Your task to perform on an android device: Go to notification settings Image 0: 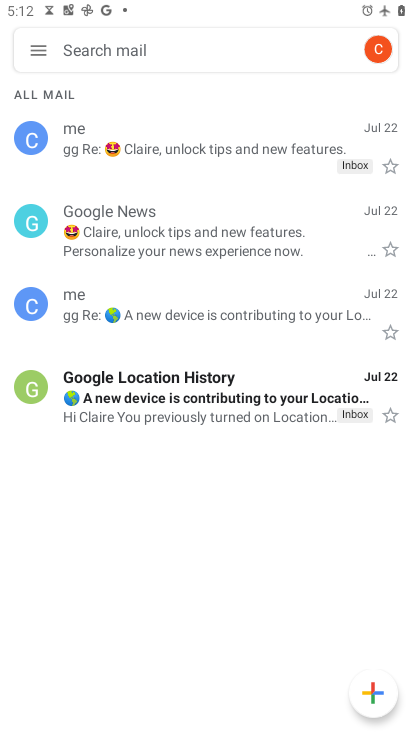
Step 0: press home button
Your task to perform on an android device: Go to notification settings Image 1: 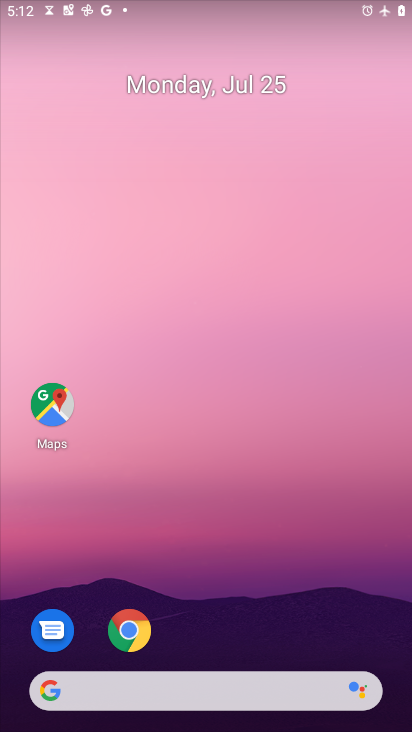
Step 1: drag from (195, 694) to (289, 37)
Your task to perform on an android device: Go to notification settings Image 2: 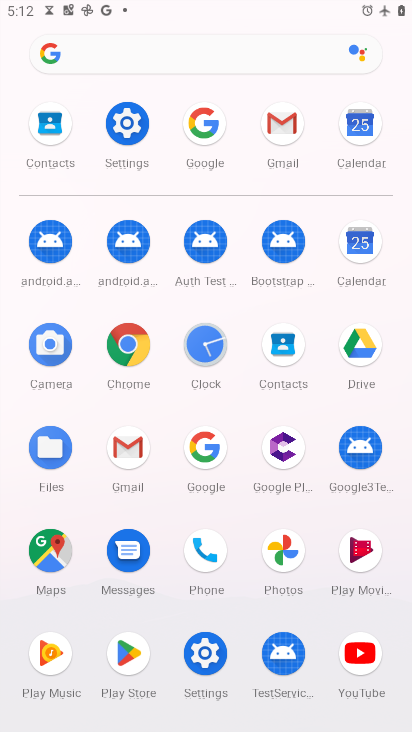
Step 2: click (127, 121)
Your task to perform on an android device: Go to notification settings Image 3: 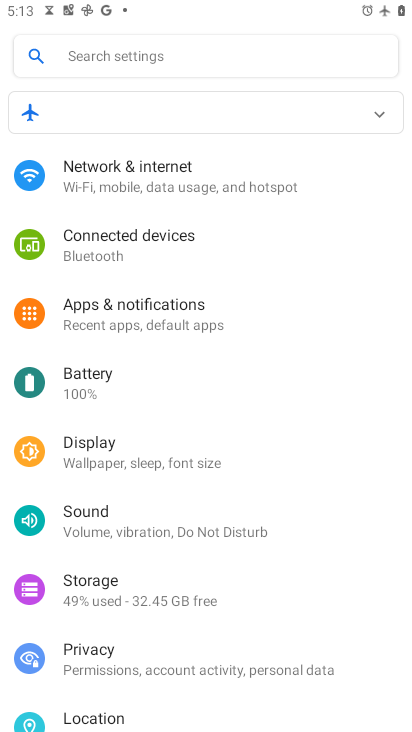
Step 3: click (172, 319)
Your task to perform on an android device: Go to notification settings Image 4: 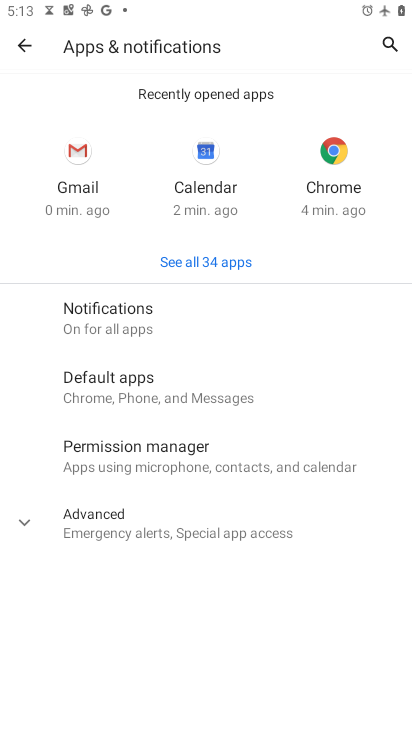
Step 4: click (144, 320)
Your task to perform on an android device: Go to notification settings Image 5: 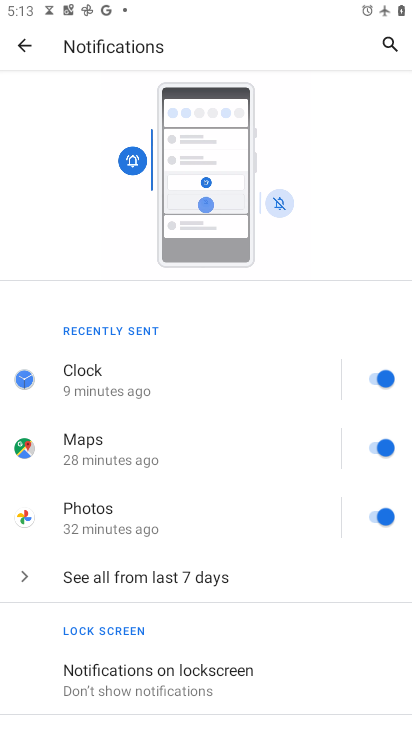
Step 5: task complete